Your task to perform on an android device: turn off picture-in-picture Image 0: 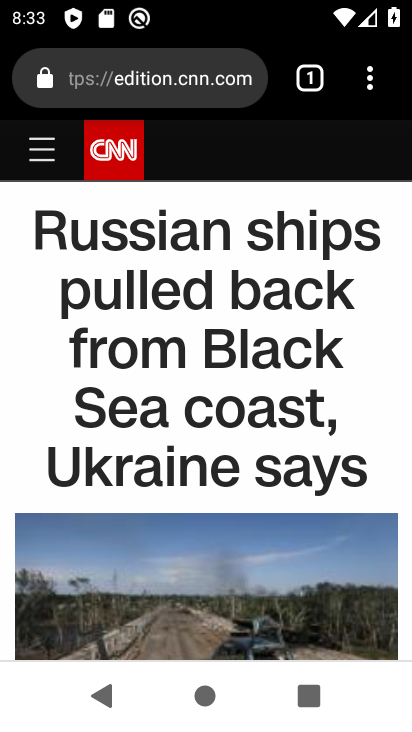
Step 0: press home button
Your task to perform on an android device: turn off picture-in-picture Image 1: 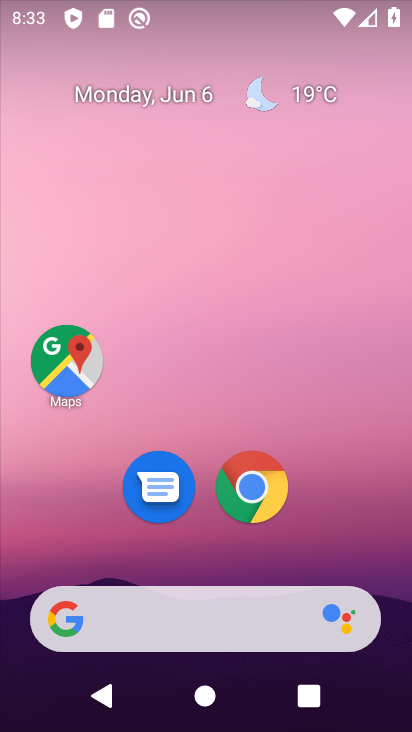
Step 1: click (251, 476)
Your task to perform on an android device: turn off picture-in-picture Image 2: 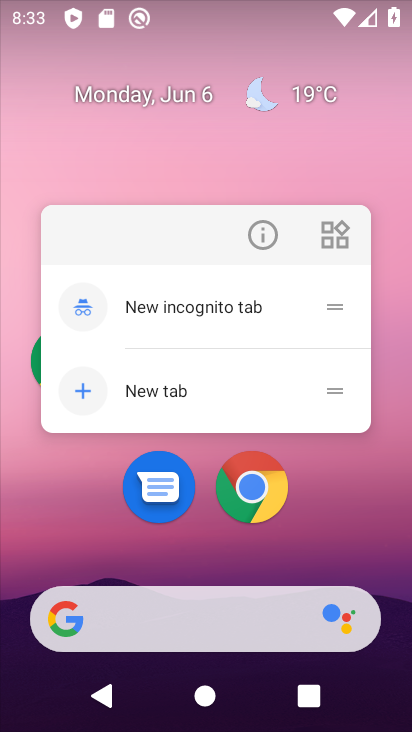
Step 2: click (265, 232)
Your task to perform on an android device: turn off picture-in-picture Image 3: 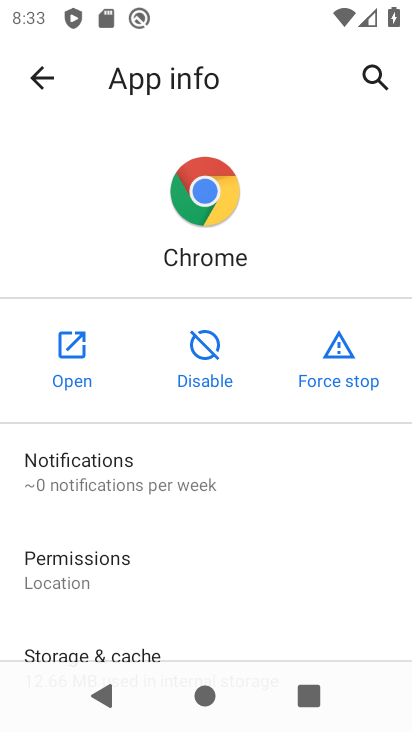
Step 3: drag from (184, 610) to (208, 7)
Your task to perform on an android device: turn off picture-in-picture Image 4: 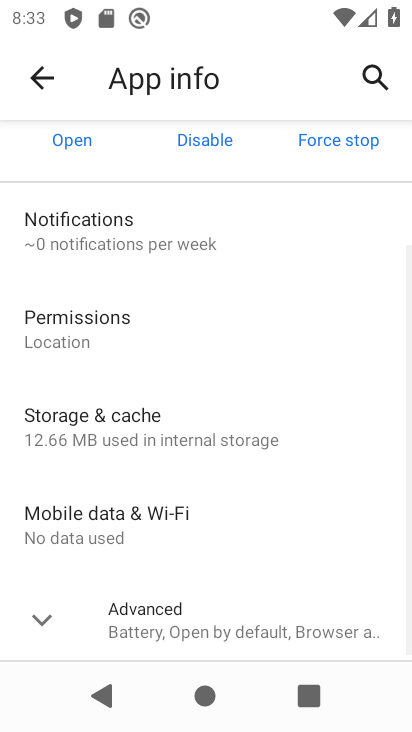
Step 4: click (55, 605)
Your task to perform on an android device: turn off picture-in-picture Image 5: 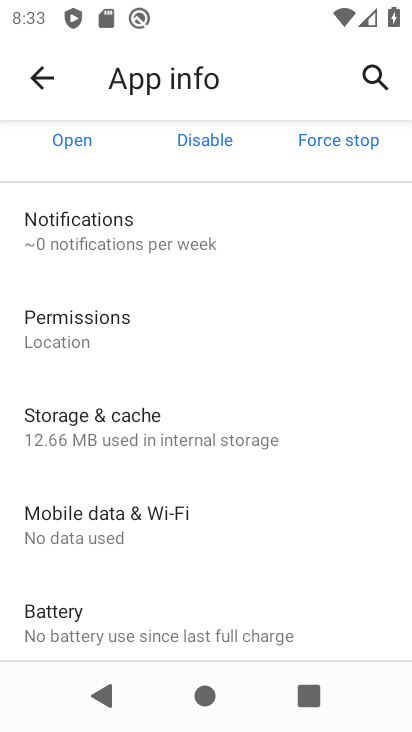
Step 5: drag from (173, 598) to (201, 106)
Your task to perform on an android device: turn off picture-in-picture Image 6: 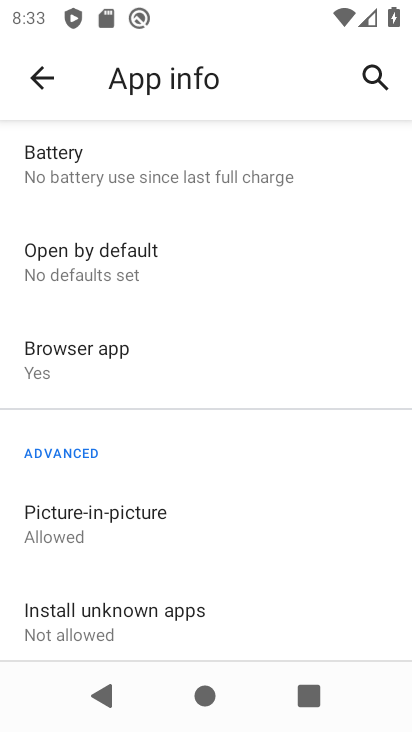
Step 6: drag from (191, 623) to (190, 81)
Your task to perform on an android device: turn off picture-in-picture Image 7: 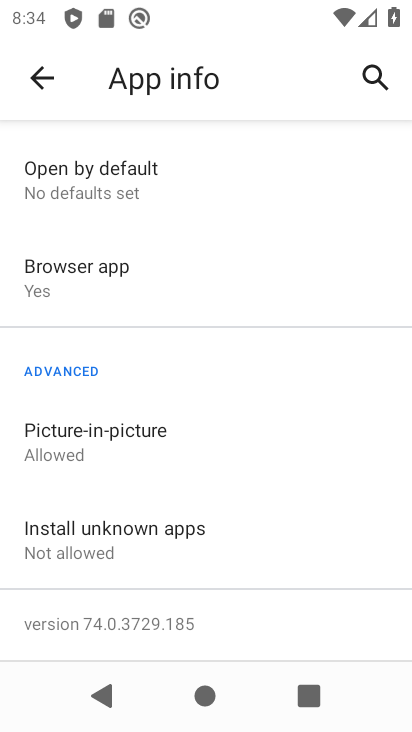
Step 7: click (104, 434)
Your task to perform on an android device: turn off picture-in-picture Image 8: 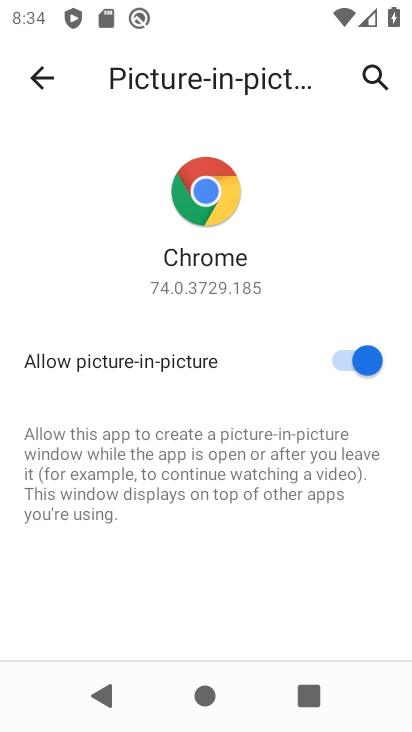
Step 8: click (348, 350)
Your task to perform on an android device: turn off picture-in-picture Image 9: 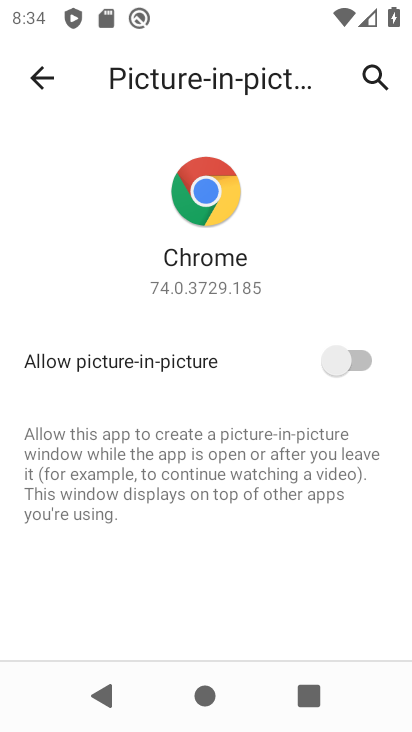
Step 9: task complete